Your task to perform on an android device: make emails show in primary in the gmail app Image 0: 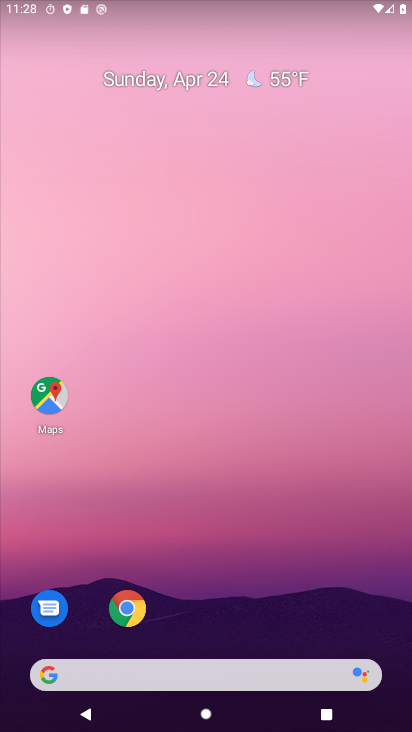
Step 0: drag from (202, 592) to (330, 70)
Your task to perform on an android device: make emails show in primary in the gmail app Image 1: 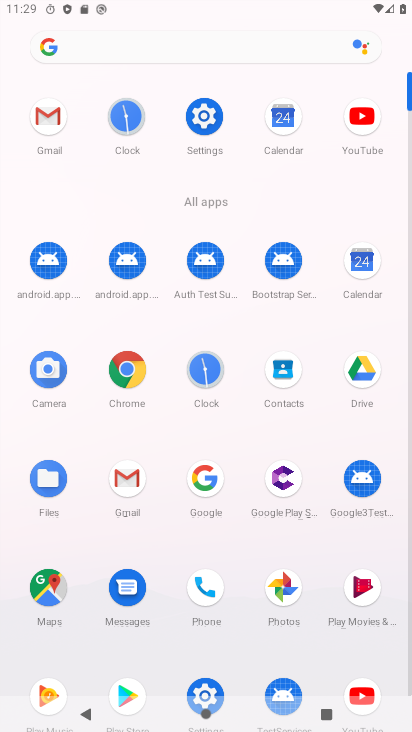
Step 1: click (49, 112)
Your task to perform on an android device: make emails show in primary in the gmail app Image 2: 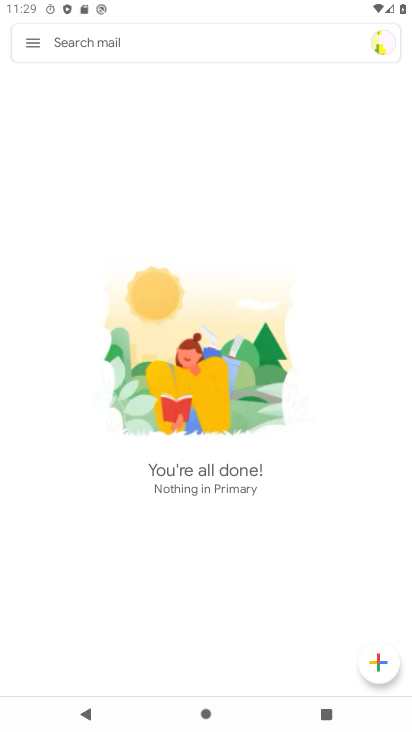
Step 2: click (21, 30)
Your task to perform on an android device: make emails show in primary in the gmail app Image 3: 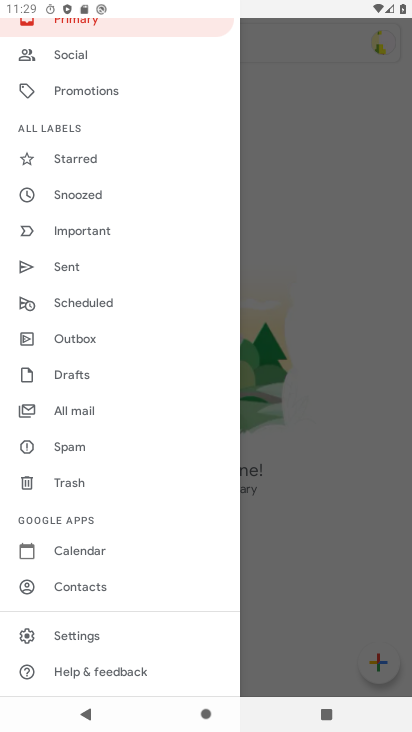
Step 3: click (127, 636)
Your task to perform on an android device: make emails show in primary in the gmail app Image 4: 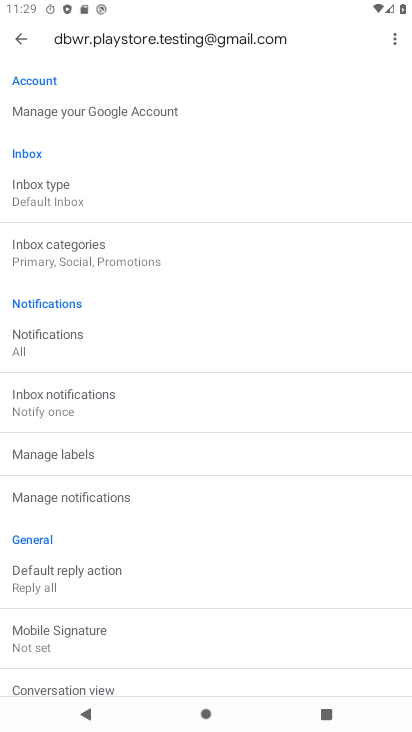
Step 4: click (114, 257)
Your task to perform on an android device: make emails show in primary in the gmail app Image 5: 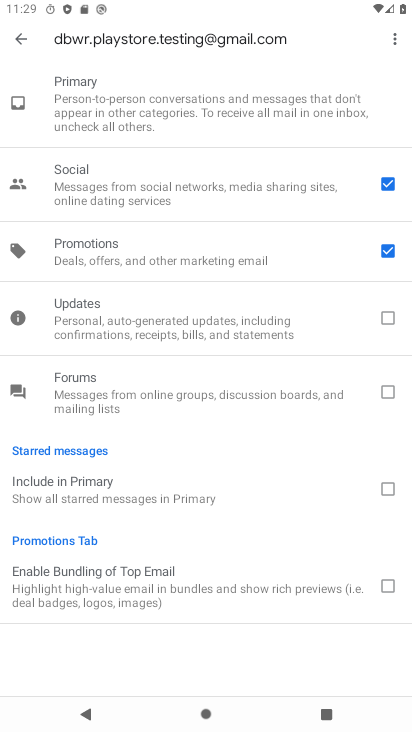
Step 5: click (394, 486)
Your task to perform on an android device: make emails show in primary in the gmail app Image 6: 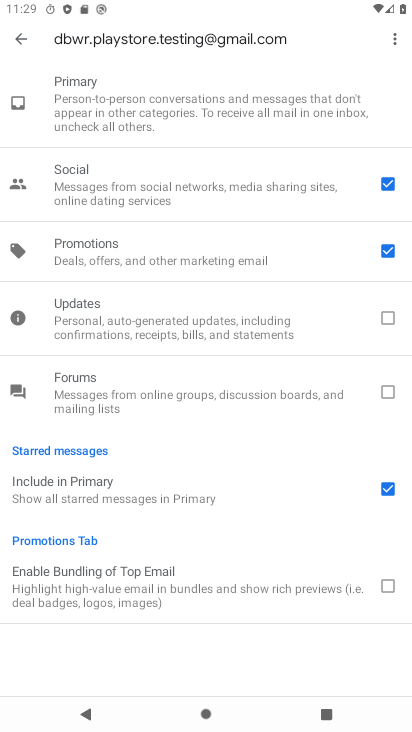
Step 6: click (388, 381)
Your task to perform on an android device: make emails show in primary in the gmail app Image 7: 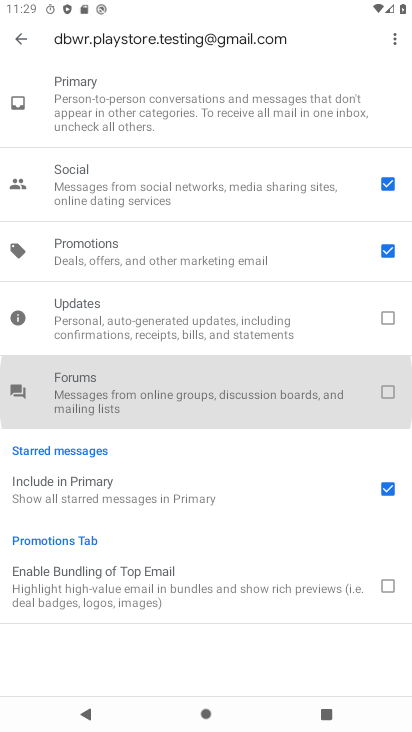
Step 7: click (387, 313)
Your task to perform on an android device: make emails show in primary in the gmail app Image 8: 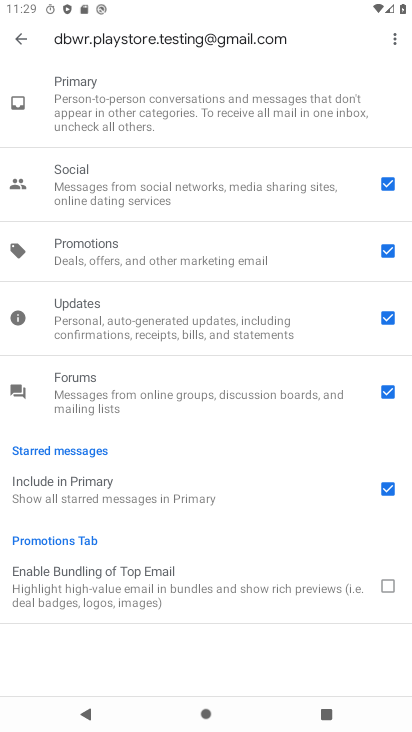
Step 8: task complete